Your task to perform on an android device: Open the calendar app, open the side menu, and click the "Day" option Image 0: 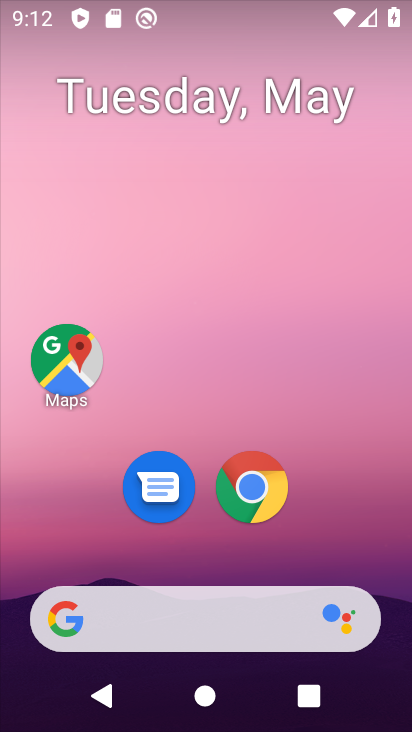
Step 0: drag from (191, 561) to (220, 77)
Your task to perform on an android device: Open the calendar app, open the side menu, and click the "Day" option Image 1: 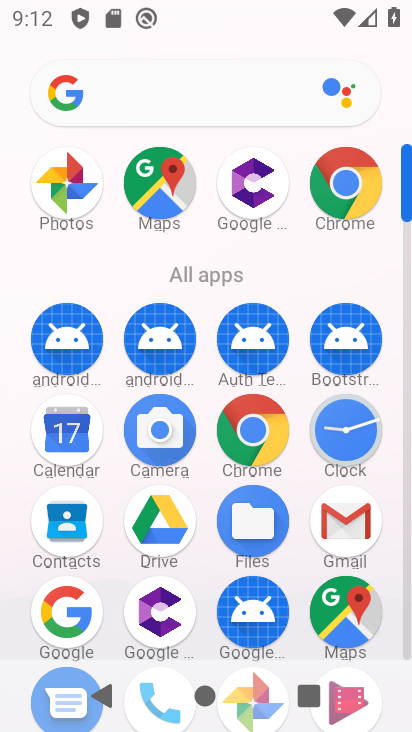
Step 1: click (84, 426)
Your task to perform on an android device: Open the calendar app, open the side menu, and click the "Day" option Image 2: 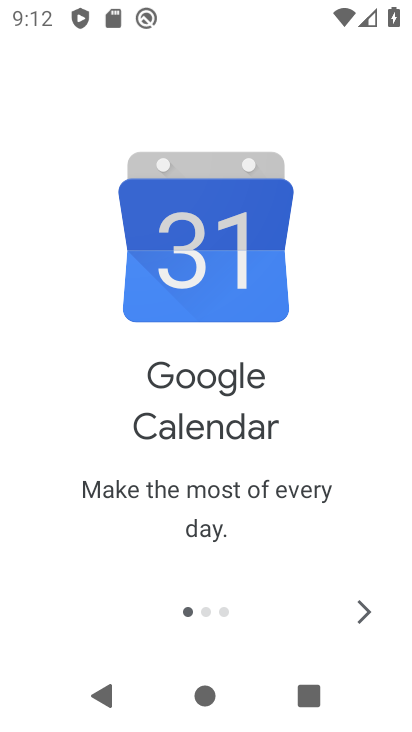
Step 2: click (351, 616)
Your task to perform on an android device: Open the calendar app, open the side menu, and click the "Day" option Image 3: 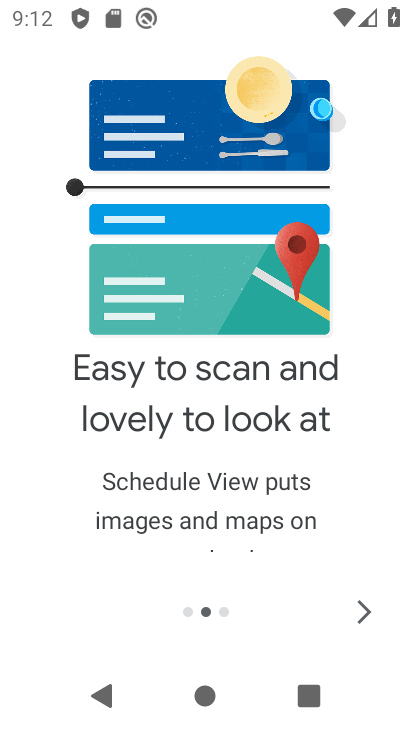
Step 3: click (349, 626)
Your task to perform on an android device: Open the calendar app, open the side menu, and click the "Day" option Image 4: 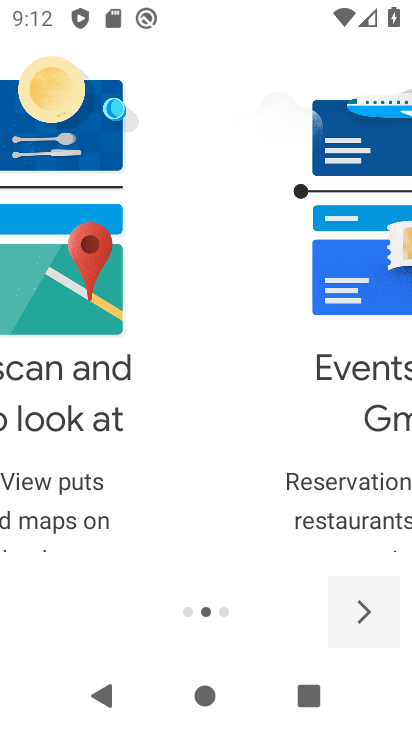
Step 4: click (373, 603)
Your task to perform on an android device: Open the calendar app, open the side menu, and click the "Day" option Image 5: 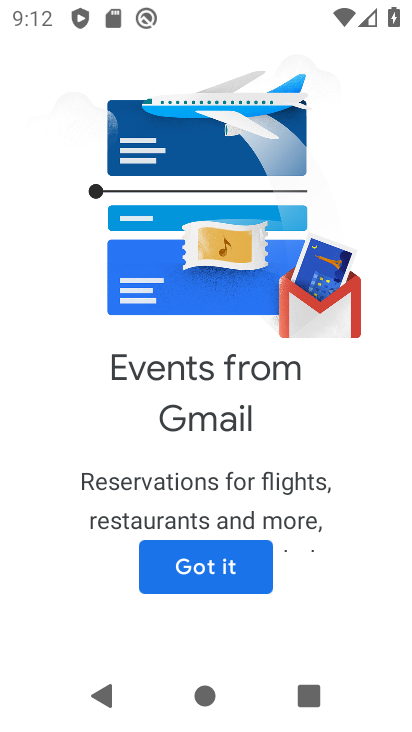
Step 5: click (182, 578)
Your task to perform on an android device: Open the calendar app, open the side menu, and click the "Day" option Image 6: 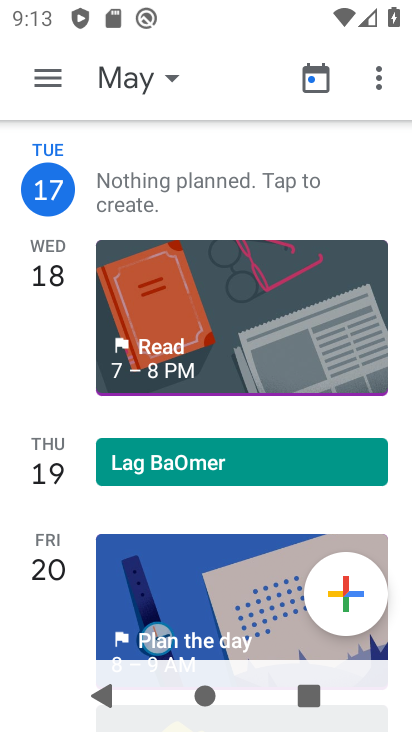
Step 6: drag from (231, 562) to (260, 237)
Your task to perform on an android device: Open the calendar app, open the side menu, and click the "Day" option Image 7: 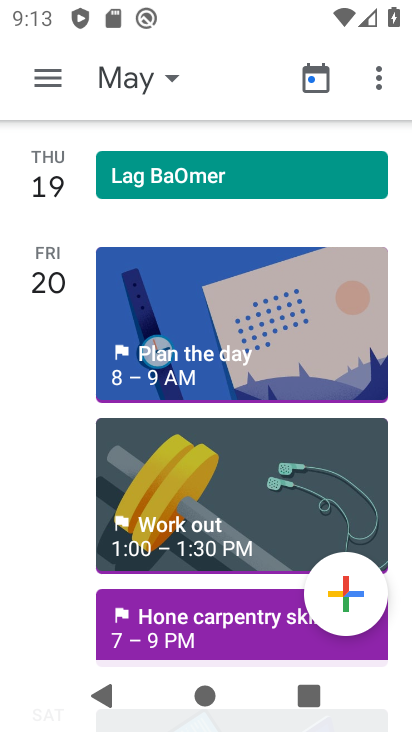
Step 7: click (53, 81)
Your task to perform on an android device: Open the calendar app, open the side menu, and click the "Day" option Image 8: 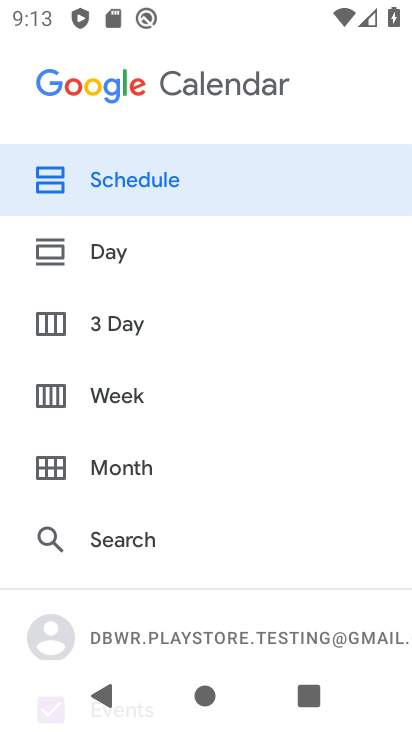
Step 8: click (137, 242)
Your task to perform on an android device: Open the calendar app, open the side menu, and click the "Day" option Image 9: 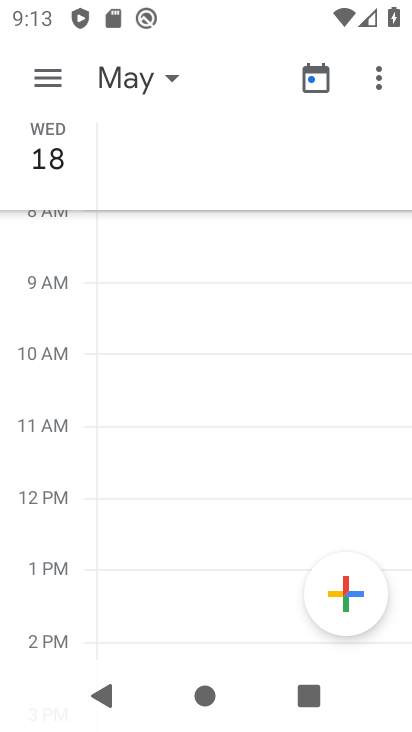
Step 9: task complete